Your task to perform on an android device: open app "WhatsApp Messenger" (install if not already installed) and go to login screen Image 0: 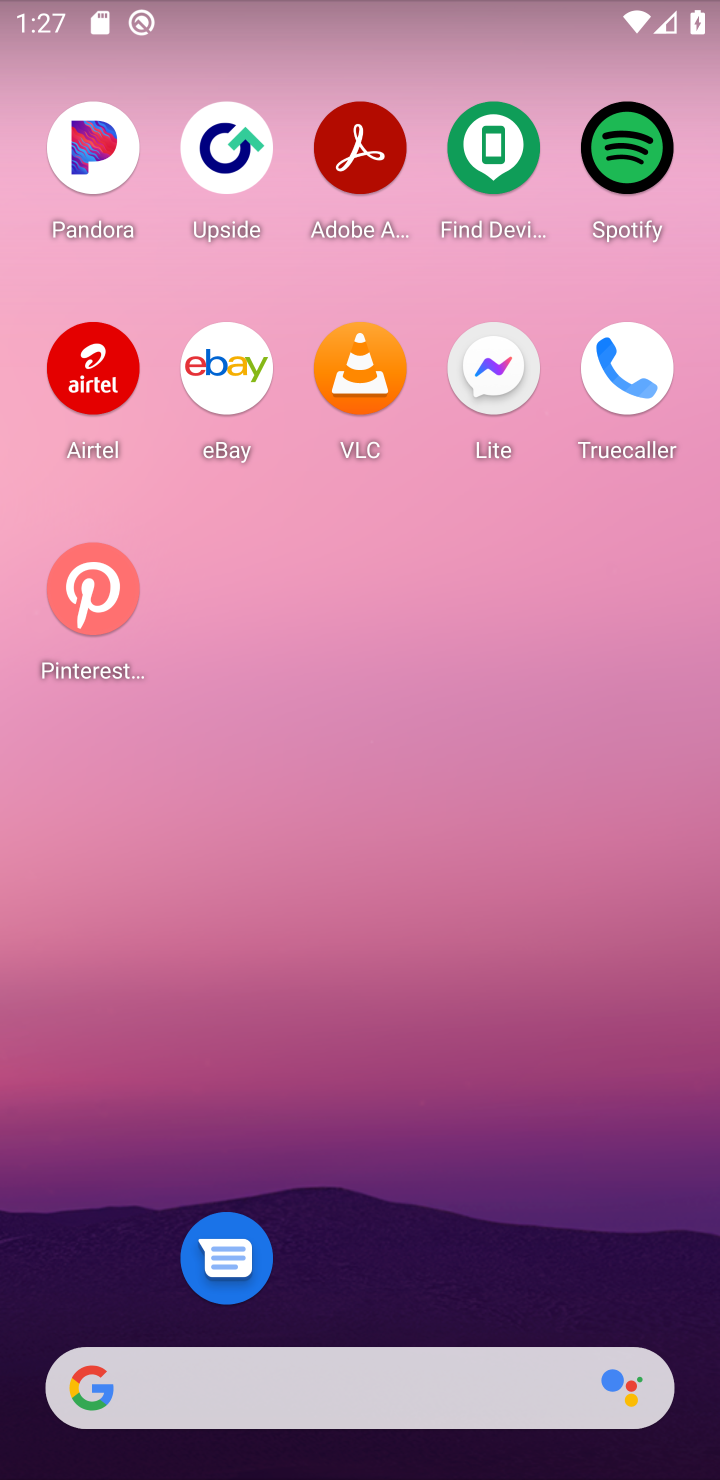
Step 0: drag from (284, 992) to (404, 223)
Your task to perform on an android device: open app "WhatsApp Messenger" (install if not already installed) and go to login screen Image 1: 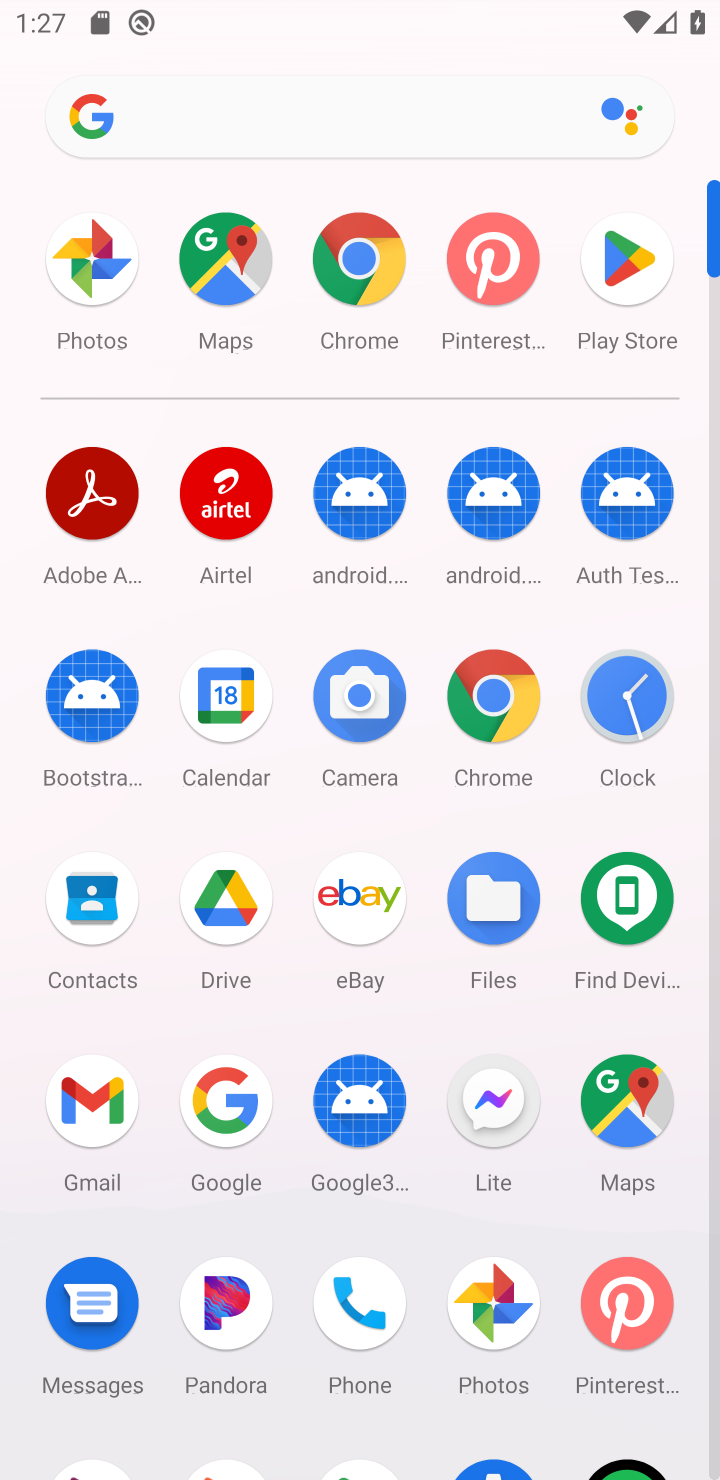
Step 1: click (614, 261)
Your task to perform on an android device: open app "WhatsApp Messenger" (install if not already installed) and go to login screen Image 2: 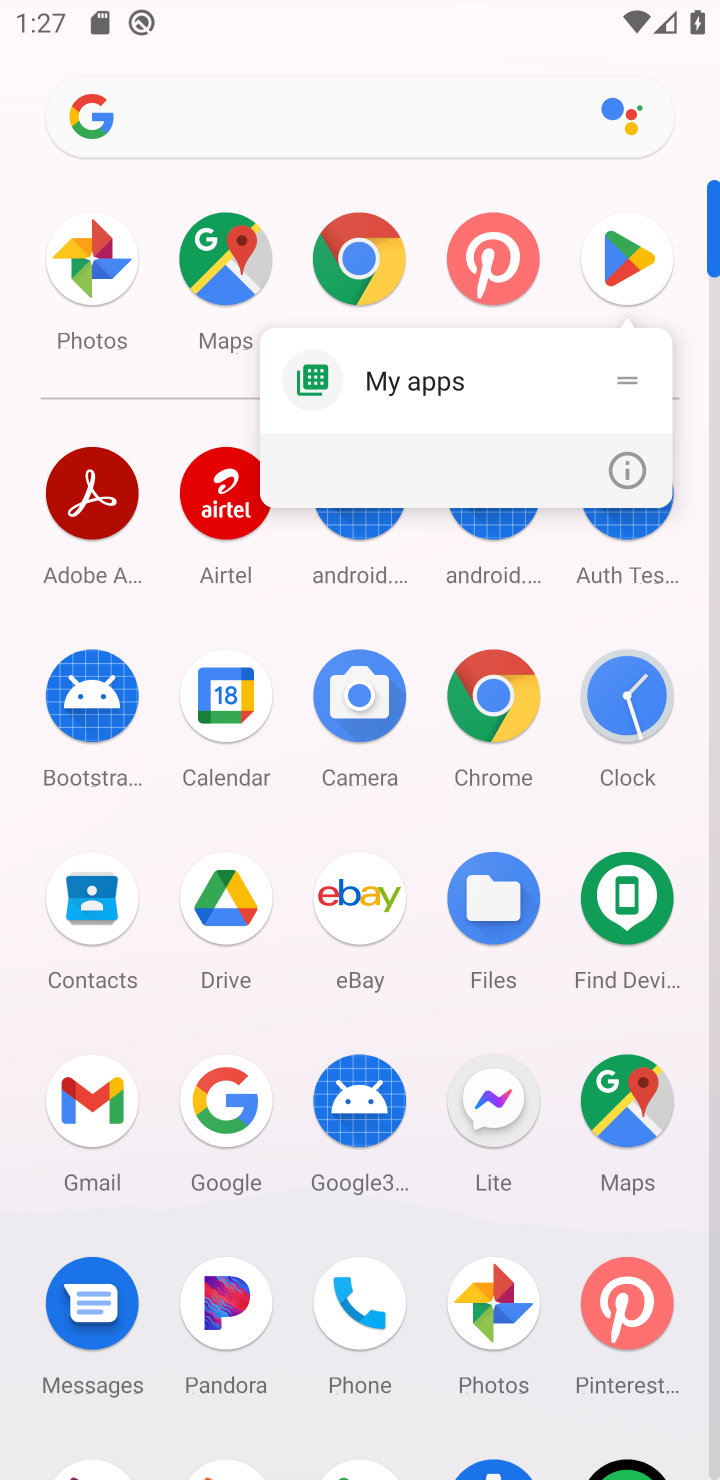
Step 2: click (621, 272)
Your task to perform on an android device: open app "WhatsApp Messenger" (install if not already installed) and go to login screen Image 3: 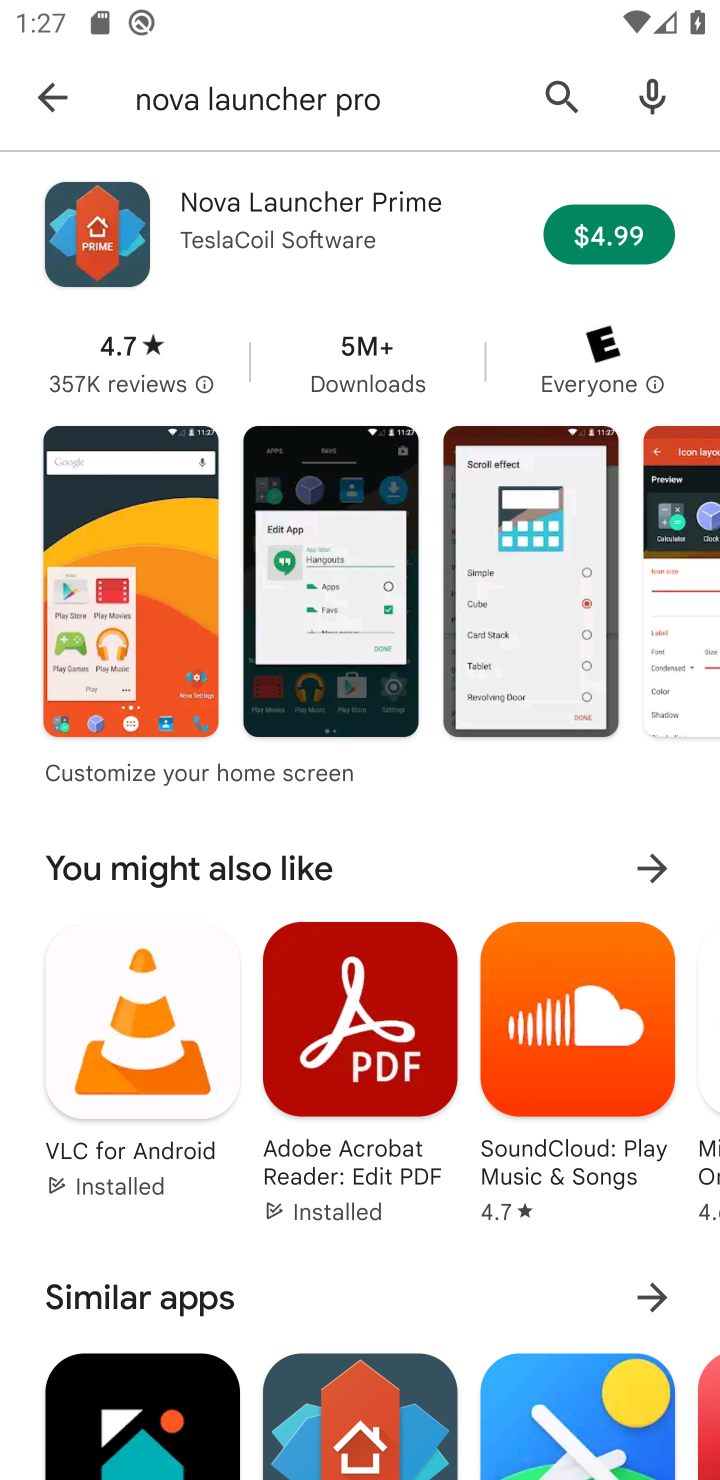
Step 3: click (554, 73)
Your task to perform on an android device: open app "WhatsApp Messenger" (install if not already installed) and go to login screen Image 4: 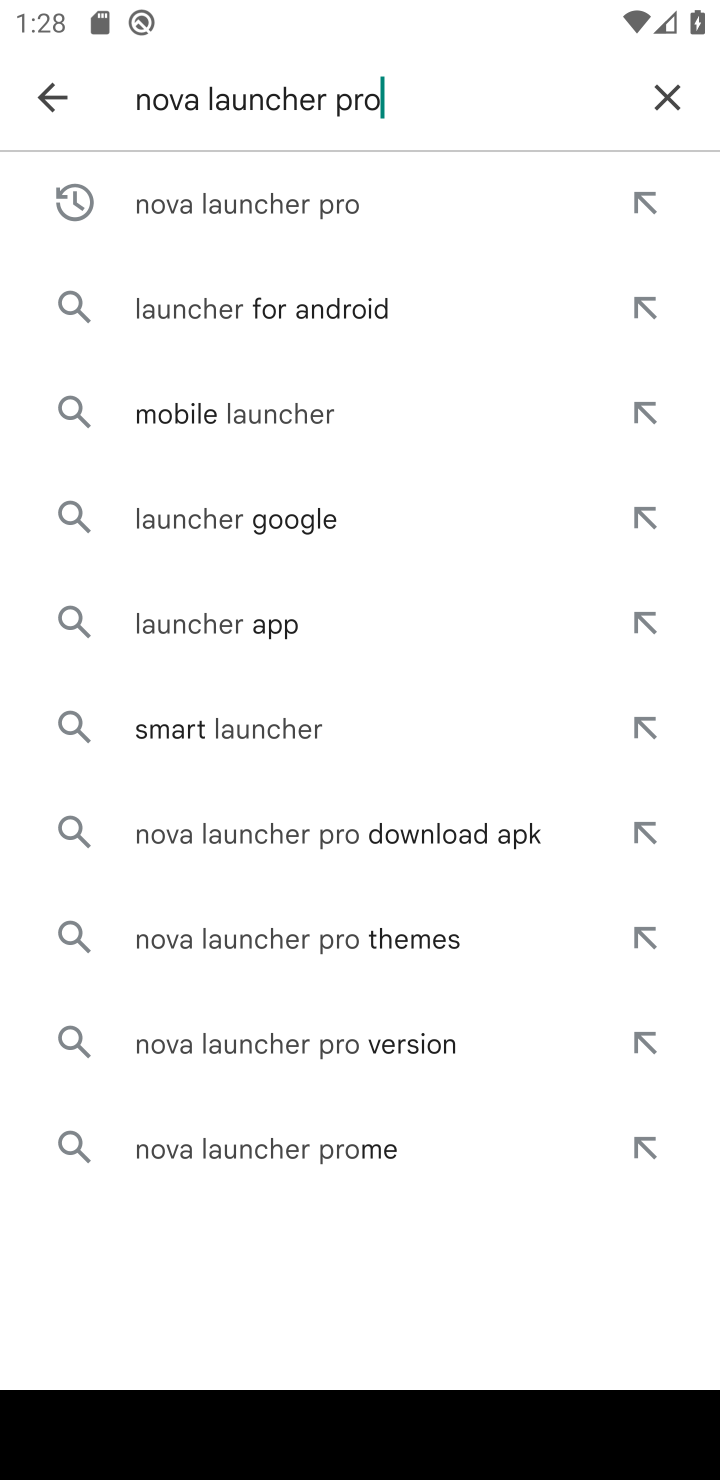
Step 4: click (667, 80)
Your task to perform on an android device: open app "WhatsApp Messenger" (install if not already installed) and go to login screen Image 5: 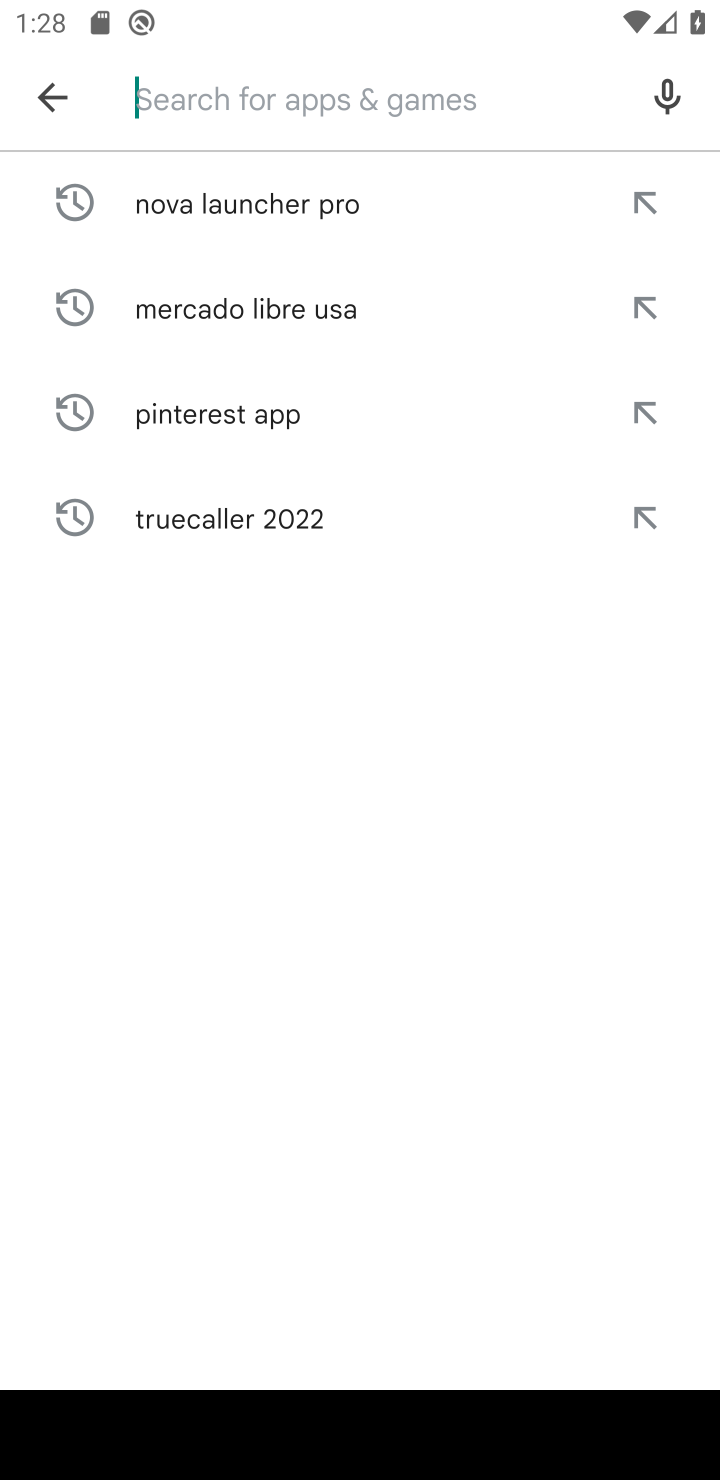
Step 5: click (430, 89)
Your task to perform on an android device: open app "WhatsApp Messenger" (install if not already installed) and go to login screen Image 6: 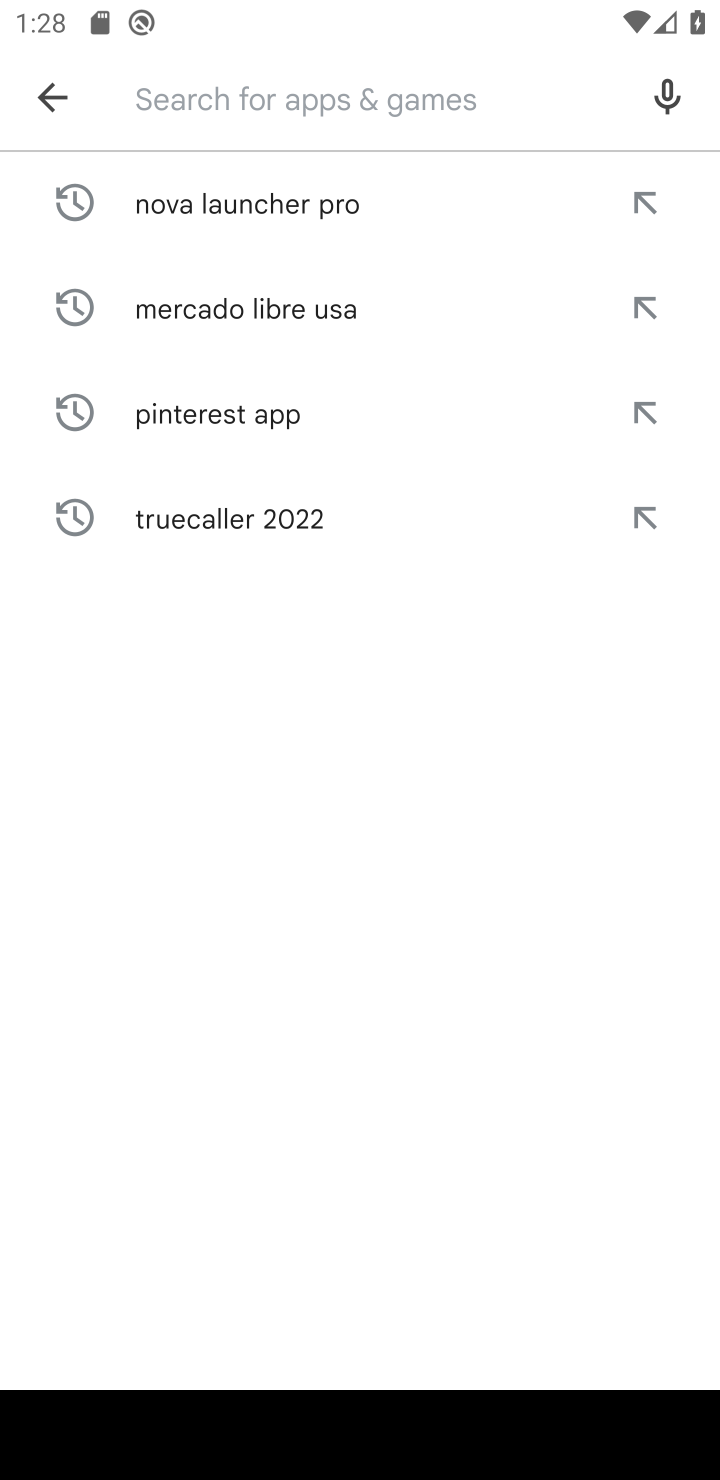
Step 6: type "WhatsApp Messenger "
Your task to perform on an android device: open app "WhatsApp Messenger" (install if not already installed) and go to login screen Image 7: 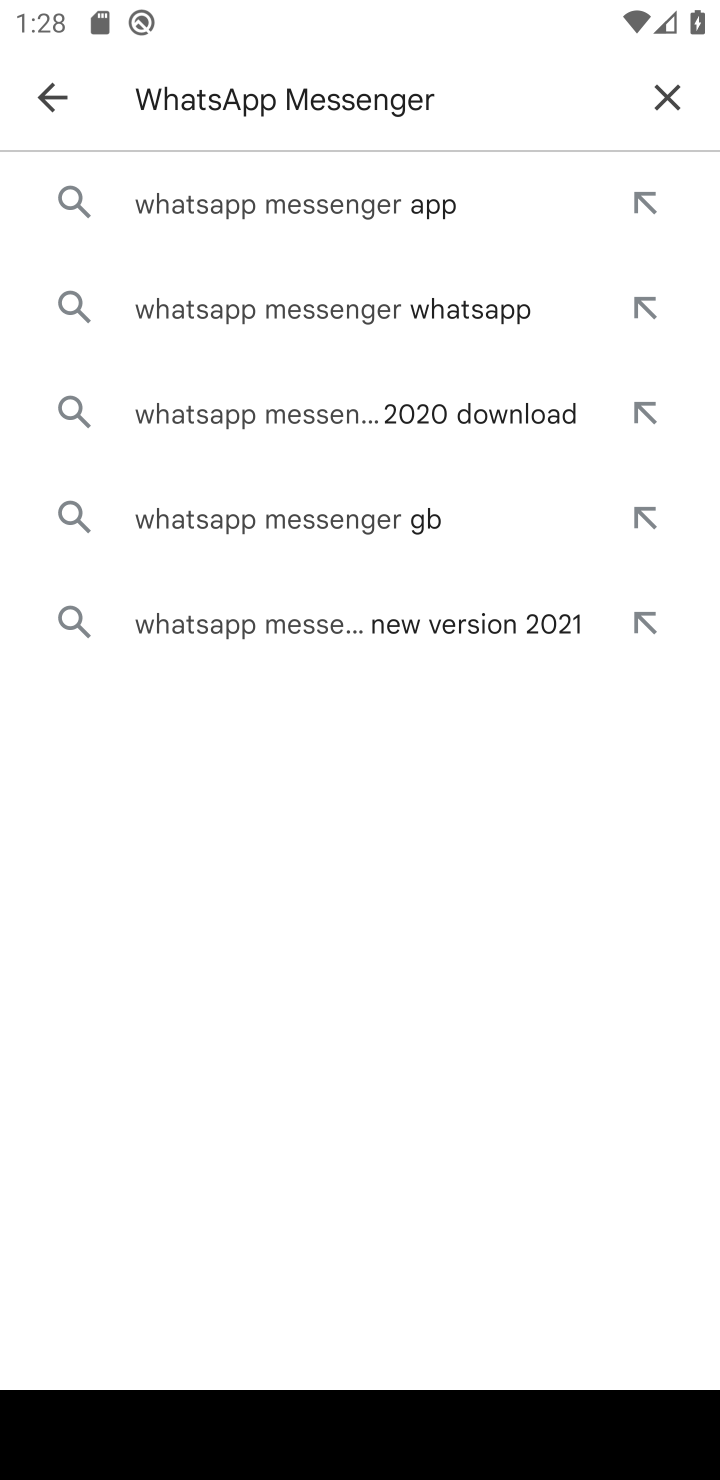
Step 7: click (362, 214)
Your task to perform on an android device: open app "WhatsApp Messenger" (install if not already installed) and go to login screen Image 8: 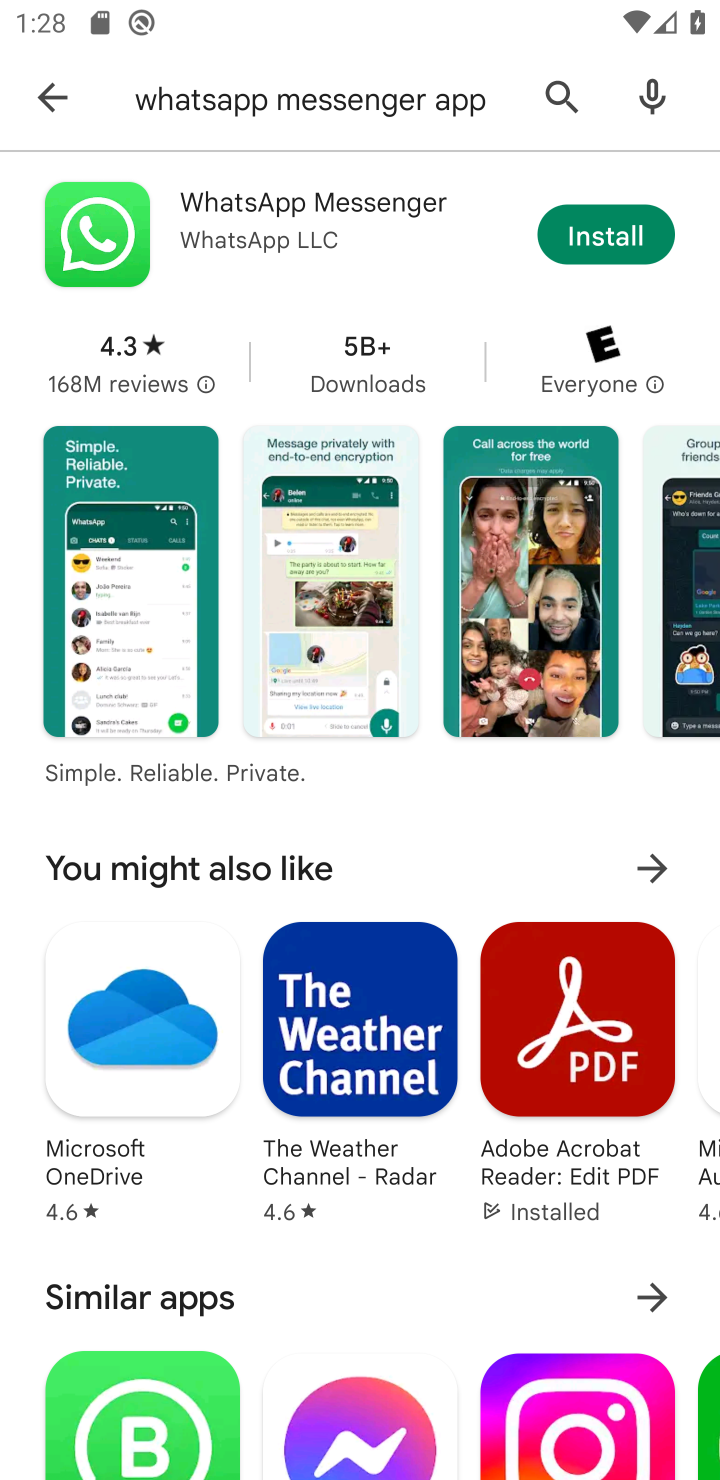
Step 8: click (649, 231)
Your task to perform on an android device: open app "WhatsApp Messenger" (install if not already installed) and go to login screen Image 9: 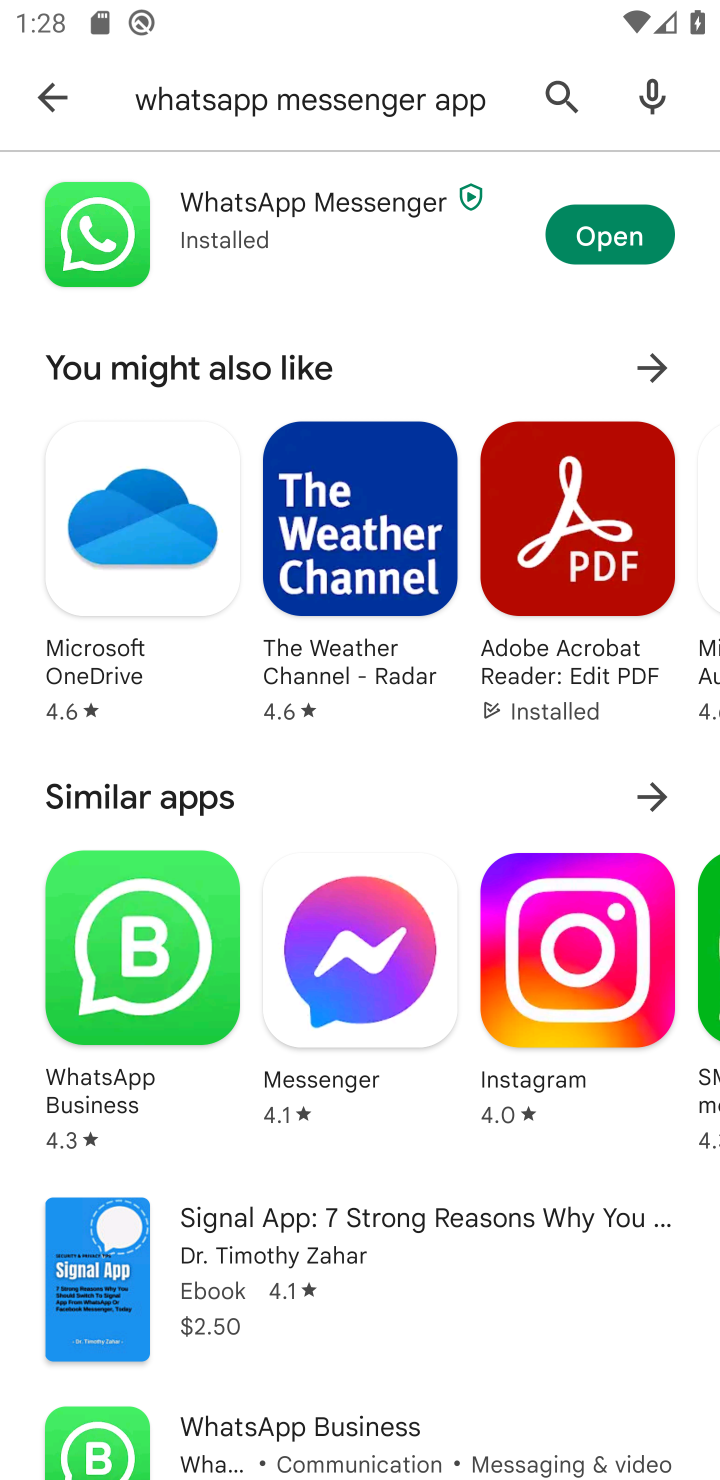
Step 9: click (599, 245)
Your task to perform on an android device: open app "WhatsApp Messenger" (install if not already installed) and go to login screen Image 10: 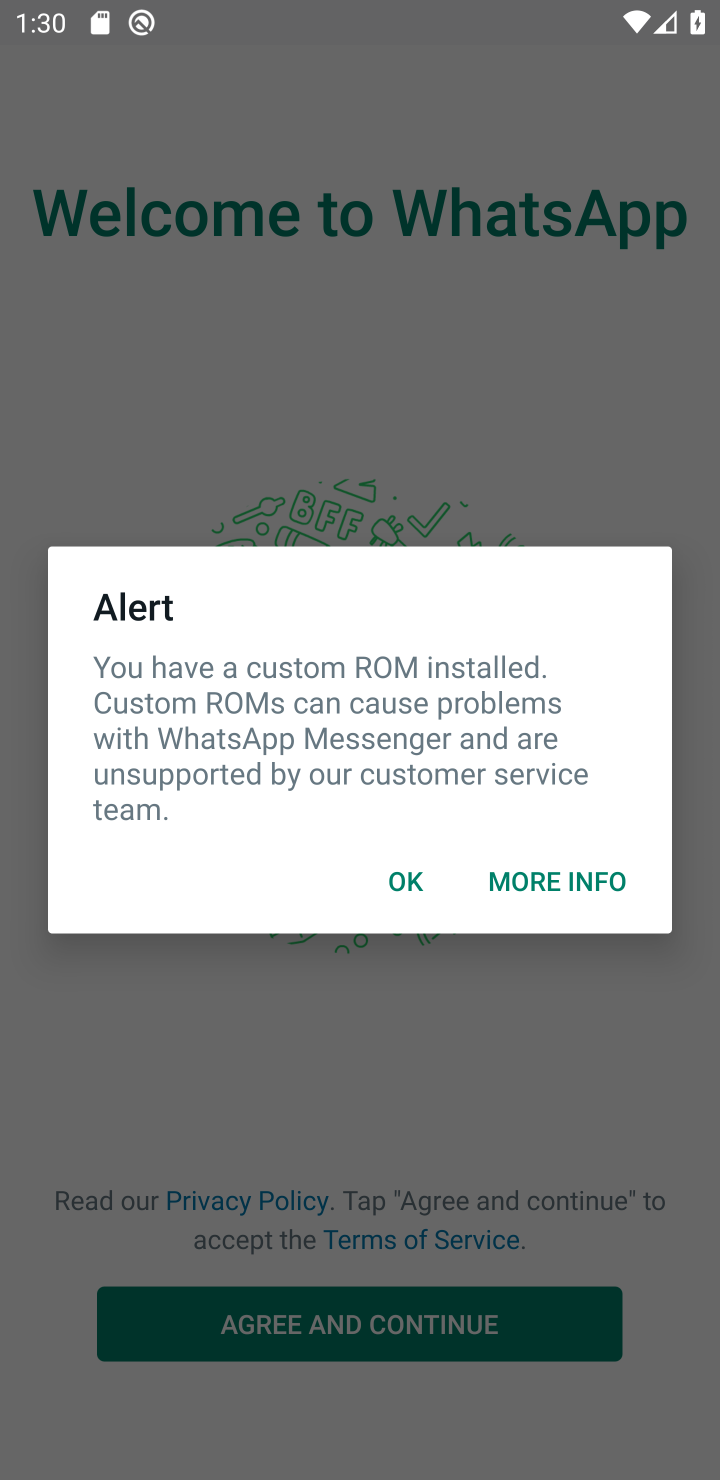
Step 10: task complete